Your task to perform on an android device: Open my contact list Image 0: 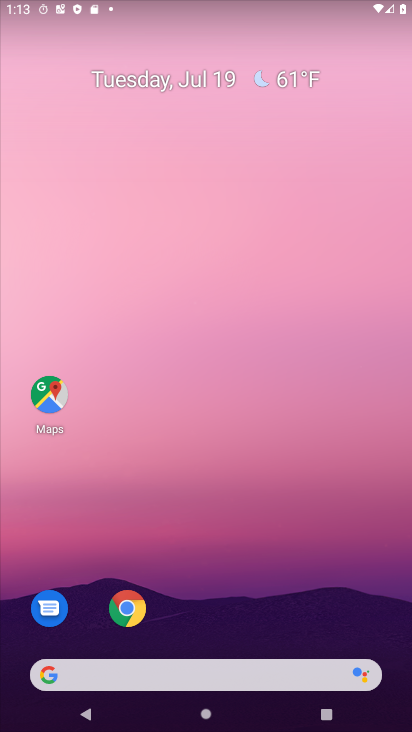
Step 0: drag from (214, 595) to (171, 54)
Your task to perform on an android device: Open my contact list Image 1: 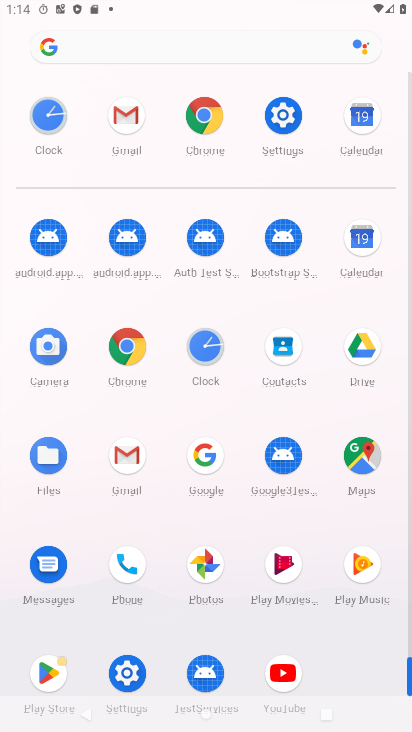
Step 1: click (126, 571)
Your task to perform on an android device: Open my contact list Image 2: 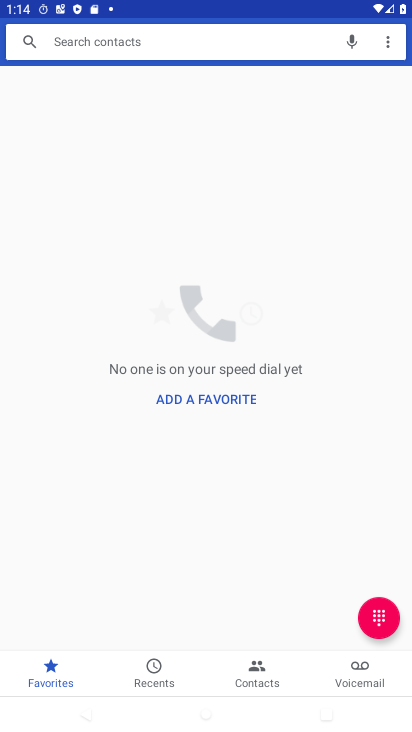
Step 2: click (270, 679)
Your task to perform on an android device: Open my contact list Image 3: 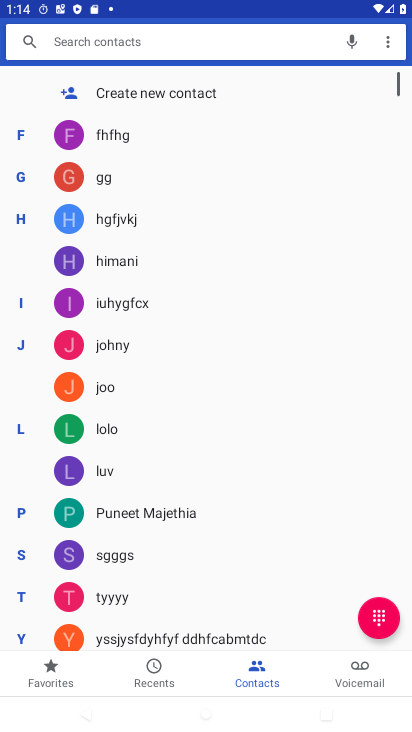
Step 3: click (146, 102)
Your task to perform on an android device: Open my contact list Image 4: 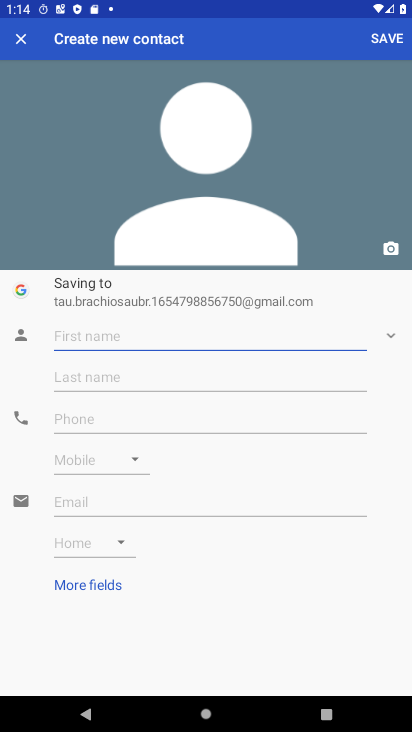
Step 4: type "ggg"
Your task to perform on an android device: Open my contact list Image 5: 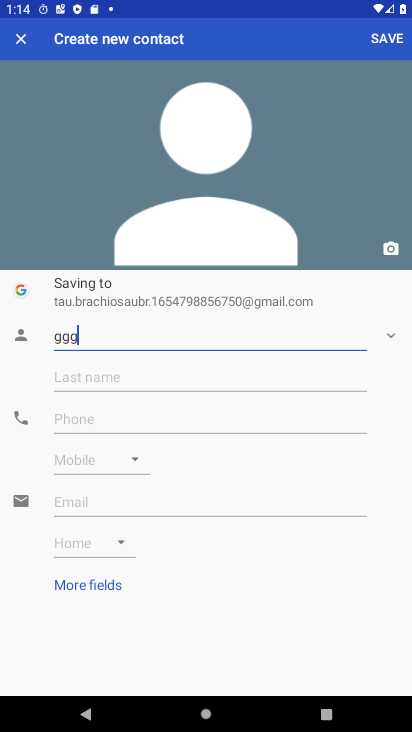
Step 5: click (66, 425)
Your task to perform on an android device: Open my contact list Image 6: 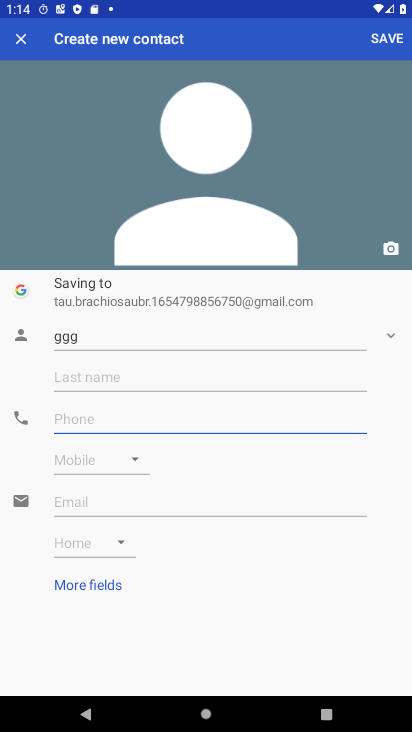
Step 6: type "76456565"
Your task to perform on an android device: Open my contact list Image 7: 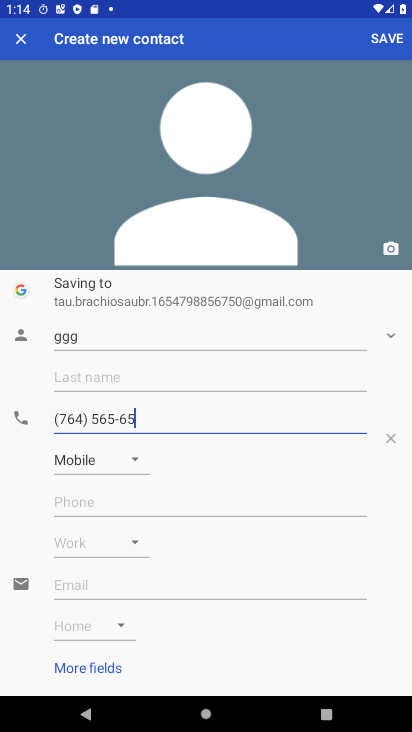
Step 7: click (383, 32)
Your task to perform on an android device: Open my contact list Image 8: 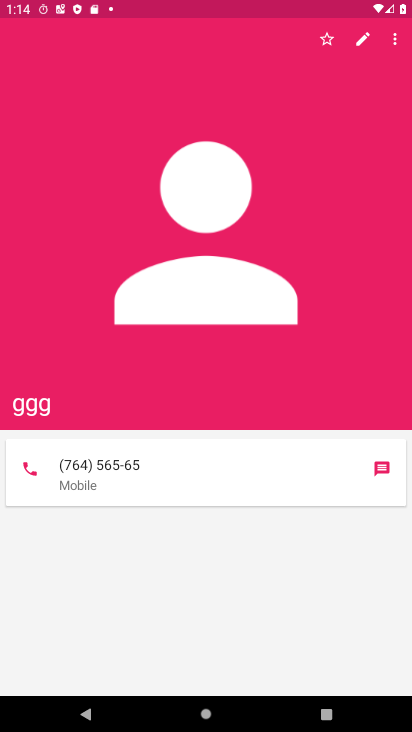
Step 8: task complete